Your task to perform on an android device: toggle data saver in the chrome app Image 0: 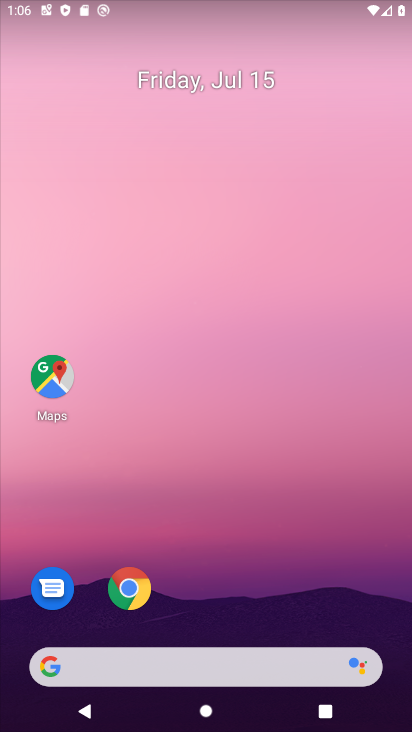
Step 0: click (129, 592)
Your task to perform on an android device: toggle data saver in the chrome app Image 1: 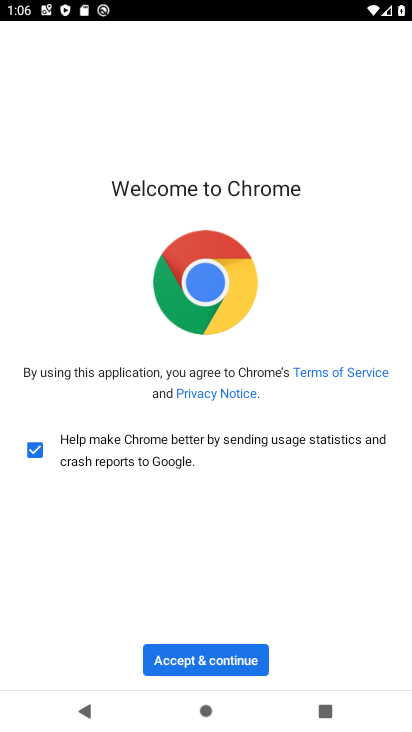
Step 1: click (197, 665)
Your task to perform on an android device: toggle data saver in the chrome app Image 2: 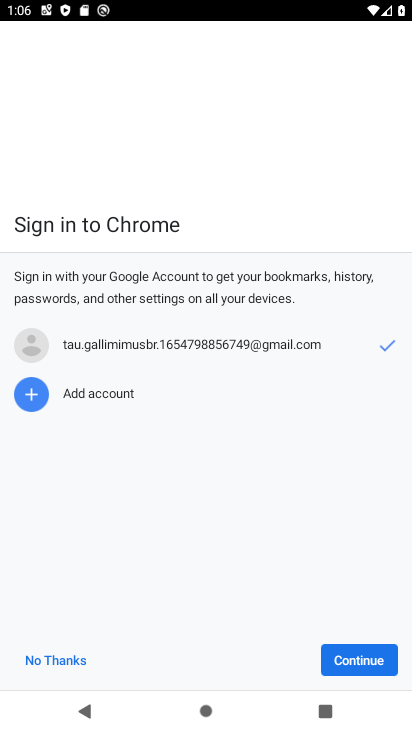
Step 2: click (391, 663)
Your task to perform on an android device: toggle data saver in the chrome app Image 3: 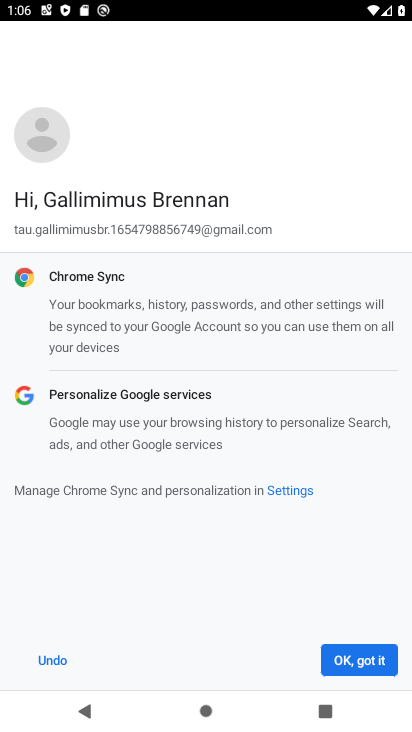
Step 3: click (359, 664)
Your task to perform on an android device: toggle data saver in the chrome app Image 4: 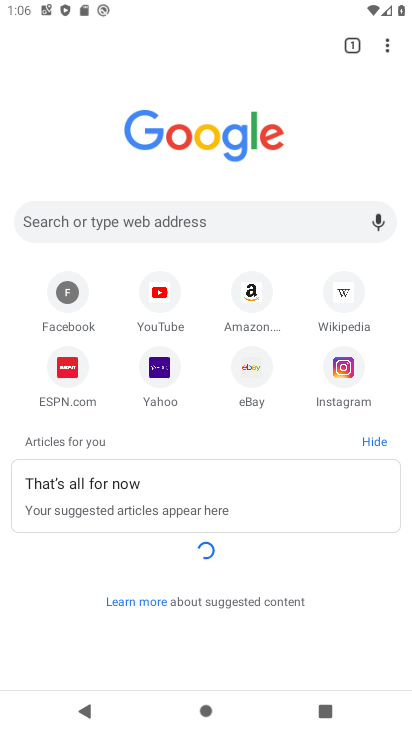
Step 4: click (386, 49)
Your task to perform on an android device: toggle data saver in the chrome app Image 5: 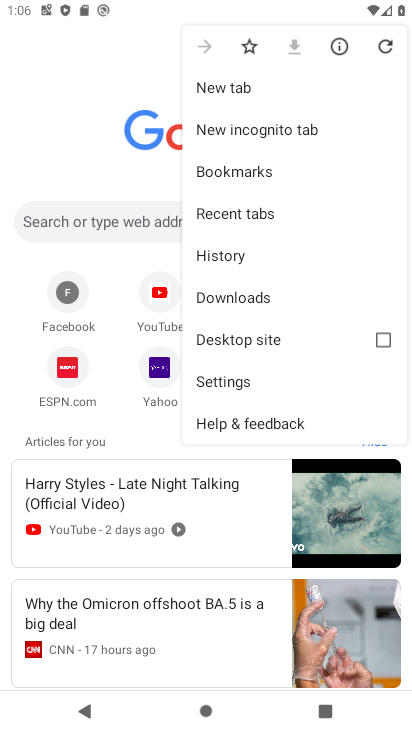
Step 5: click (218, 374)
Your task to perform on an android device: toggle data saver in the chrome app Image 6: 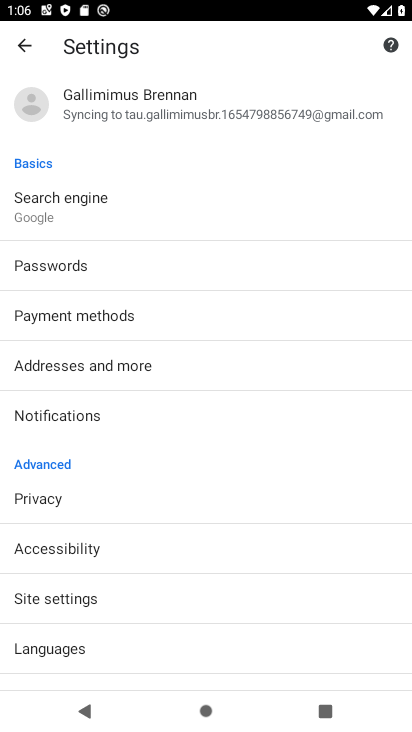
Step 6: drag from (91, 636) to (162, 328)
Your task to perform on an android device: toggle data saver in the chrome app Image 7: 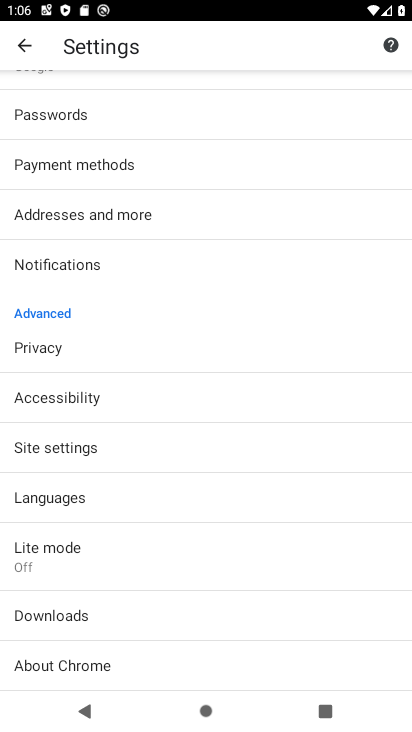
Step 7: click (45, 545)
Your task to perform on an android device: toggle data saver in the chrome app Image 8: 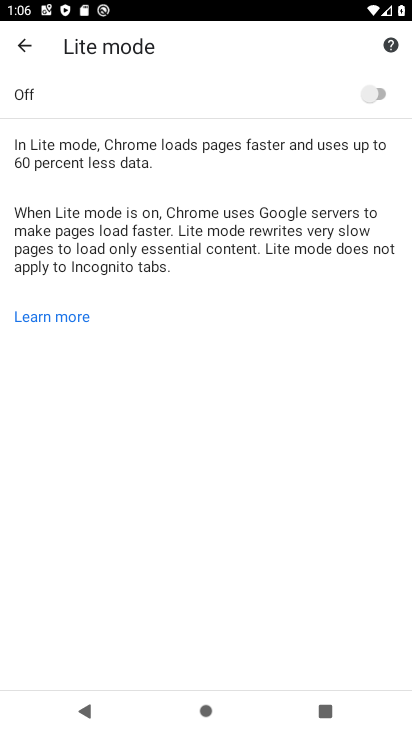
Step 8: click (384, 89)
Your task to perform on an android device: toggle data saver in the chrome app Image 9: 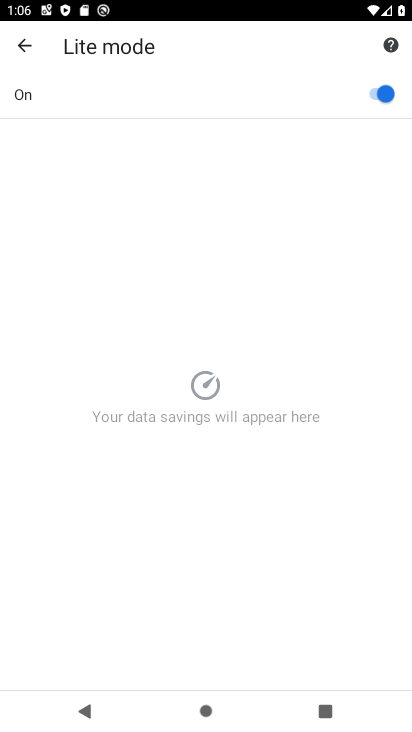
Step 9: task complete